Your task to perform on an android device: See recent photos Image 0: 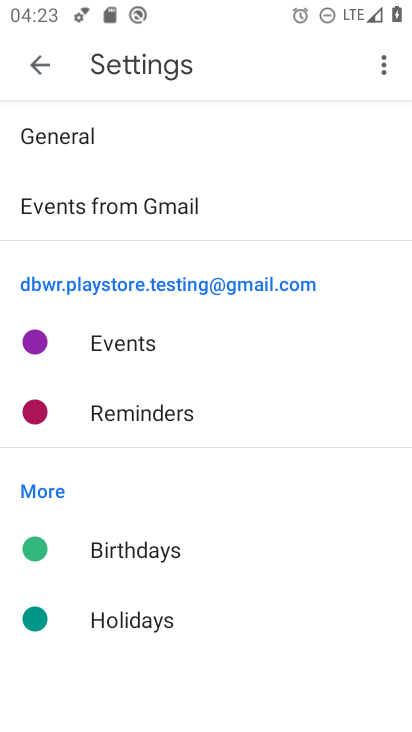
Step 0: press home button
Your task to perform on an android device: See recent photos Image 1: 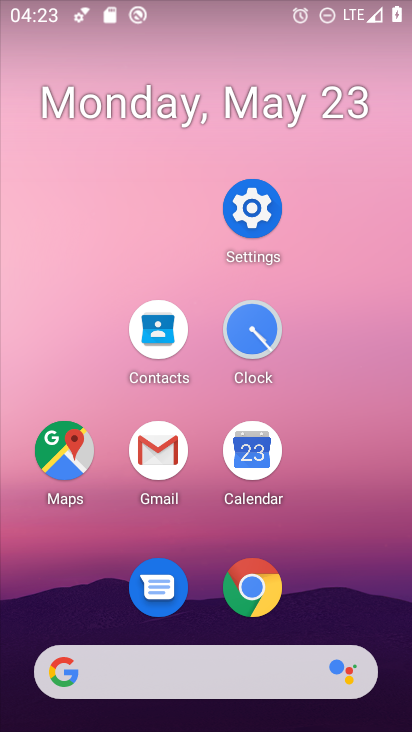
Step 1: drag from (329, 609) to (332, 61)
Your task to perform on an android device: See recent photos Image 2: 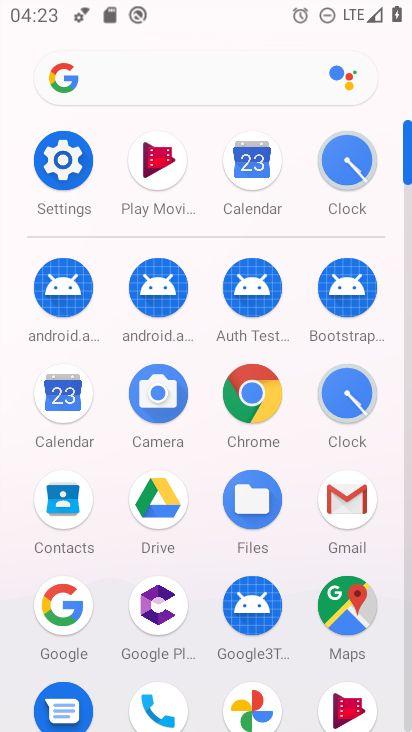
Step 2: click (250, 696)
Your task to perform on an android device: See recent photos Image 3: 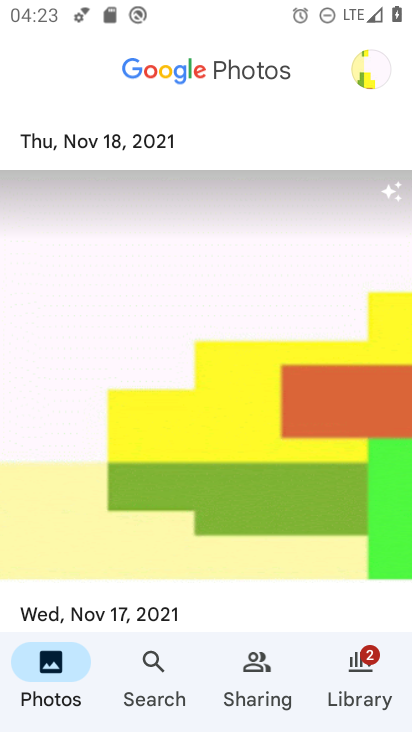
Step 3: click (368, 692)
Your task to perform on an android device: See recent photos Image 4: 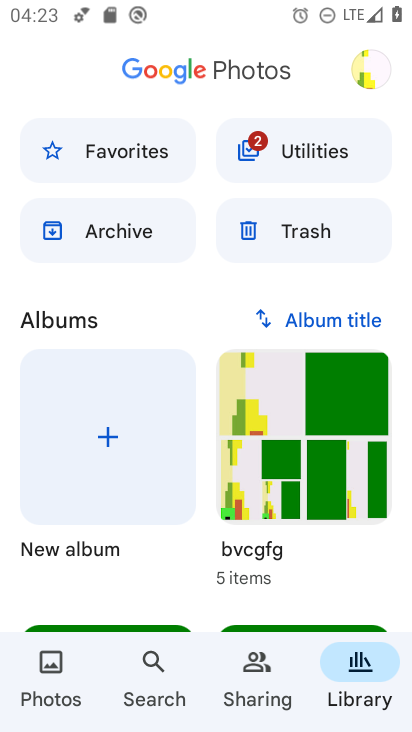
Step 4: click (136, 246)
Your task to perform on an android device: See recent photos Image 5: 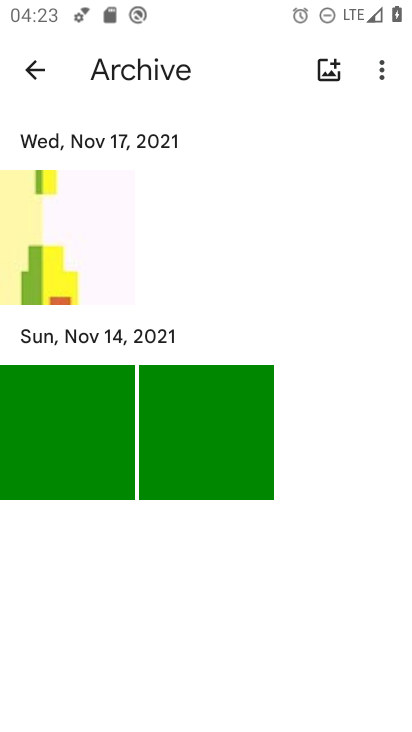
Step 5: task complete